Your task to perform on an android device: How big is a giraffe? Image 0: 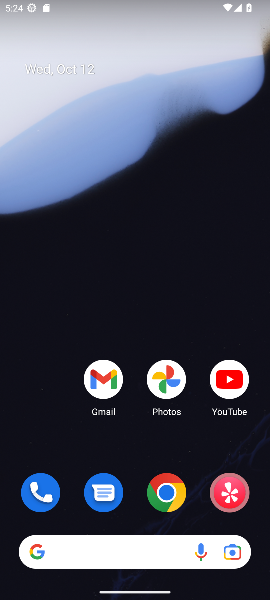
Step 0: click (173, 495)
Your task to perform on an android device: How big is a giraffe? Image 1: 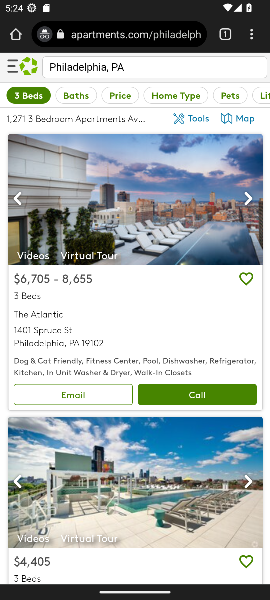
Step 1: click (142, 33)
Your task to perform on an android device: How big is a giraffe? Image 2: 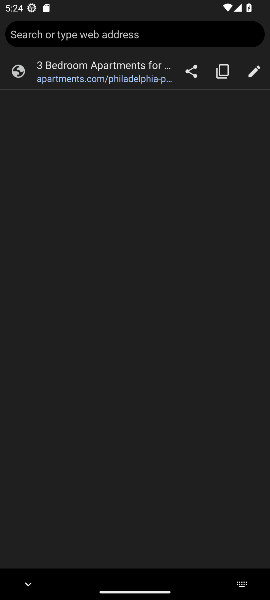
Step 2: type "How big is a giraffe?"
Your task to perform on an android device: How big is a giraffe? Image 3: 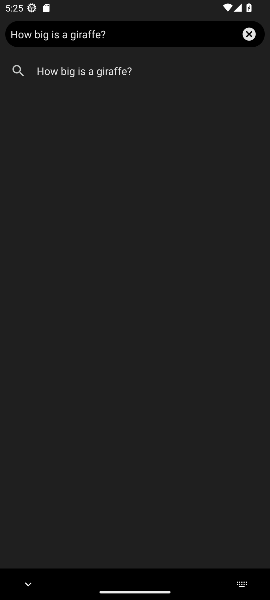
Step 3: click (99, 71)
Your task to perform on an android device: How big is a giraffe? Image 4: 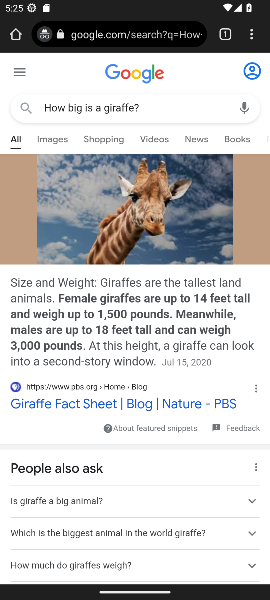
Step 4: task complete